Your task to perform on an android device: Show me popular games on the Play Store Image 0: 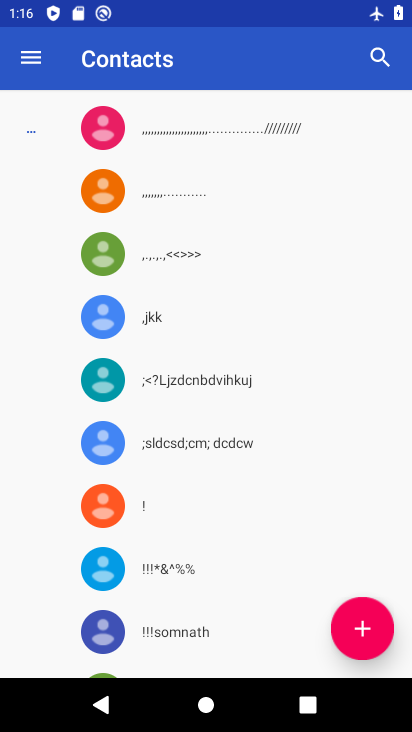
Step 0: press back button
Your task to perform on an android device: Show me popular games on the Play Store Image 1: 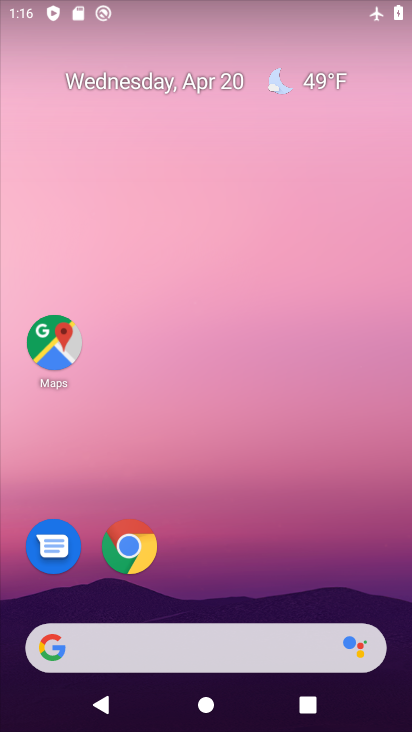
Step 1: drag from (225, 543) to (304, 3)
Your task to perform on an android device: Show me popular games on the Play Store Image 2: 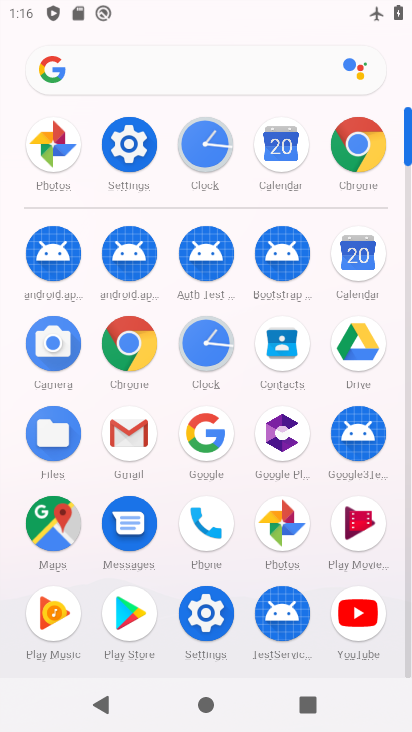
Step 2: click (136, 619)
Your task to perform on an android device: Show me popular games on the Play Store Image 3: 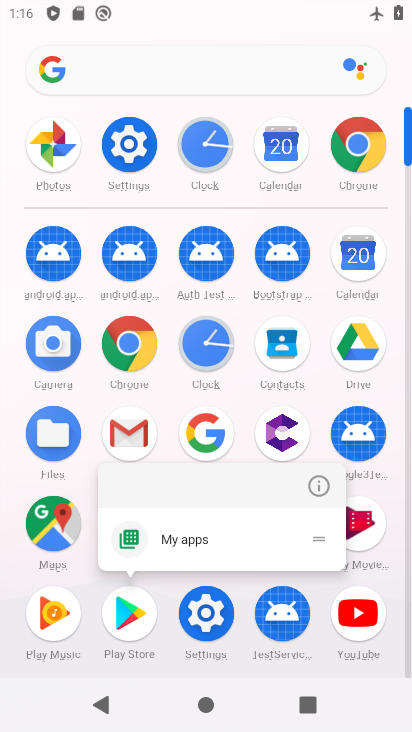
Step 3: click (130, 607)
Your task to perform on an android device: Show me popular games on the Play Store Image 4: 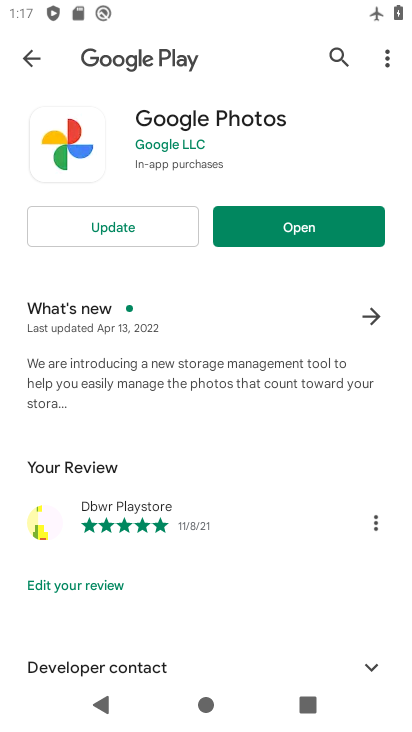
Step 4: click (44, 51)
Your task to perform on an android device: Show me popular games on the Play Store Image 5: 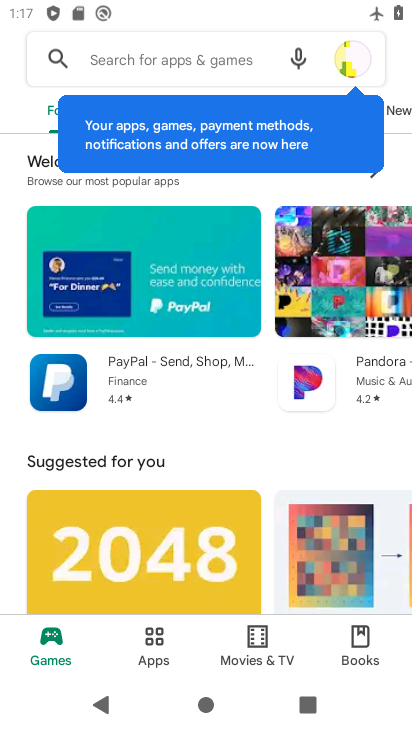
Step 5: click (149, 639)
Your task to perform on an android device: Show me popular games on the Play Store Image 6: 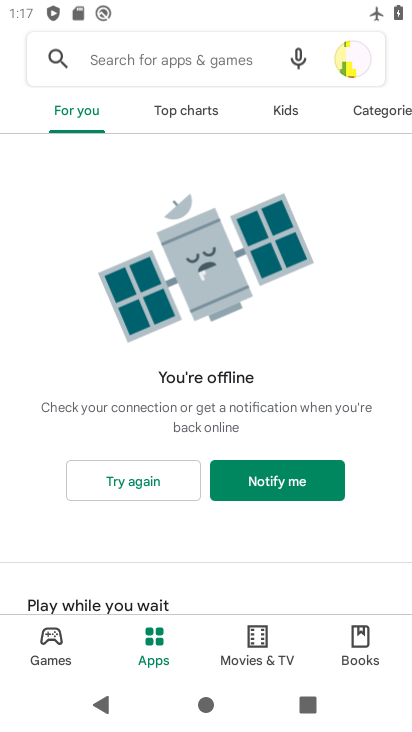
Step 6: task complete